Your task to perform on an android device: Open settings Image 0: 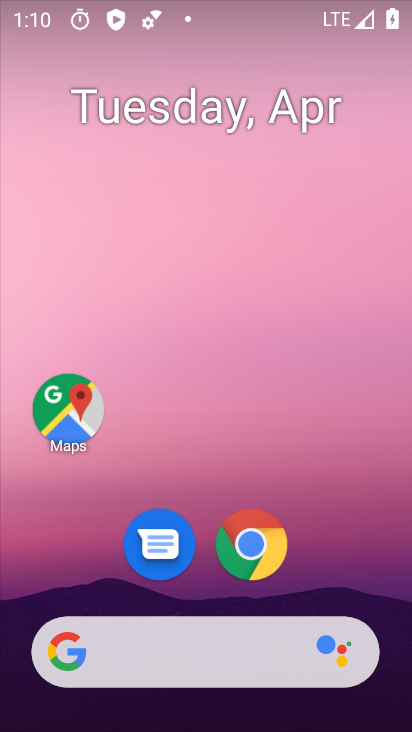
Step 0: drag from (346, 579) to (349, 65)
Your task to perform on an android device: Open settings Image 1: 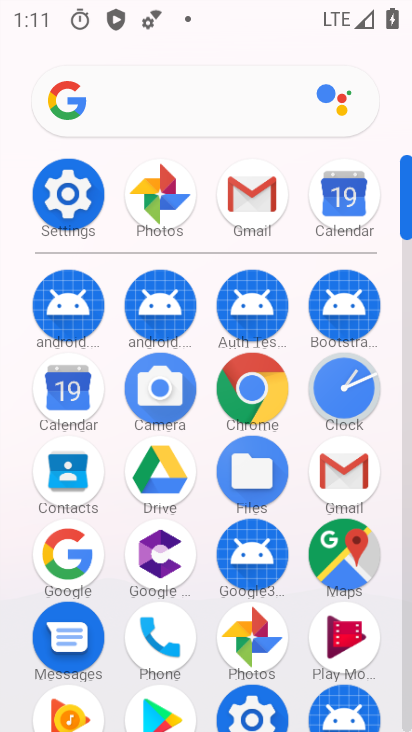
Step 1: click (61, 195)
Your task to perform on an android device: Open settings Image 2: 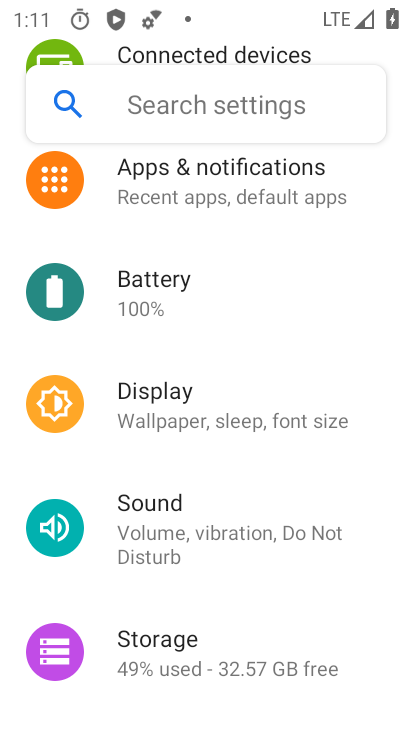
Step 2: task complete